Your task to perform on an android device: Go to Maps Image 0: 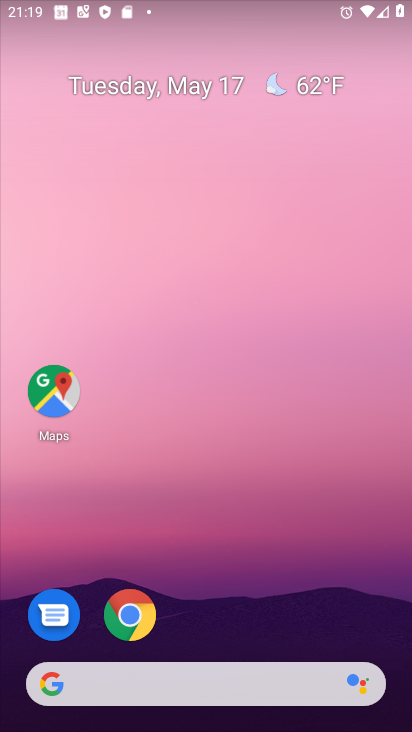
Step 0: click (57, 392)
Your task to perform on an android device: Go to Maps Image 1: 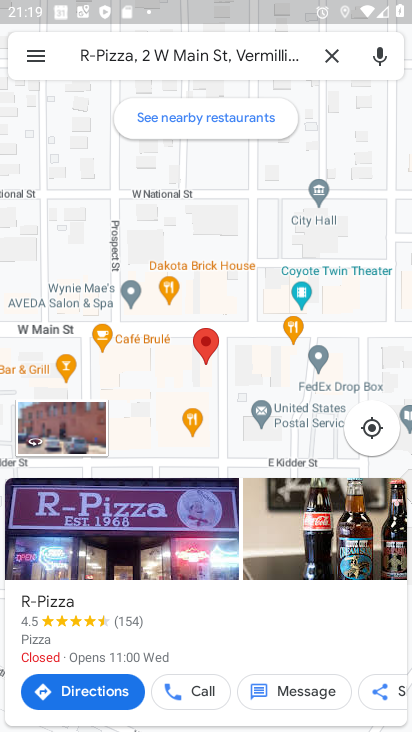
Step 1: click (342, 53)
Your task to perform on an android device: Go to Maps Image 2: 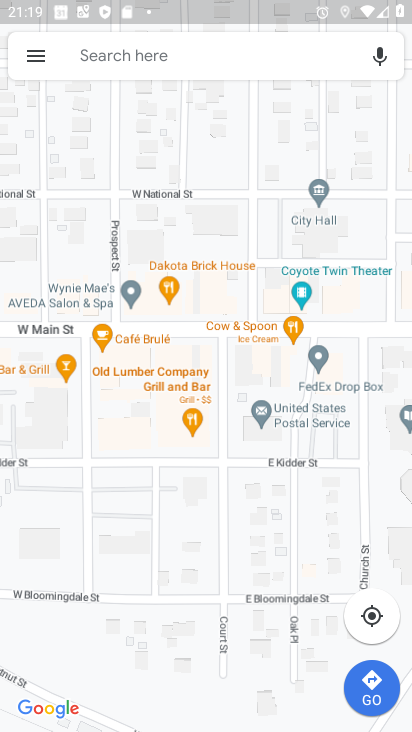
Step 2: task complete